Your task to perform on an android device: Go to Google Image 0: 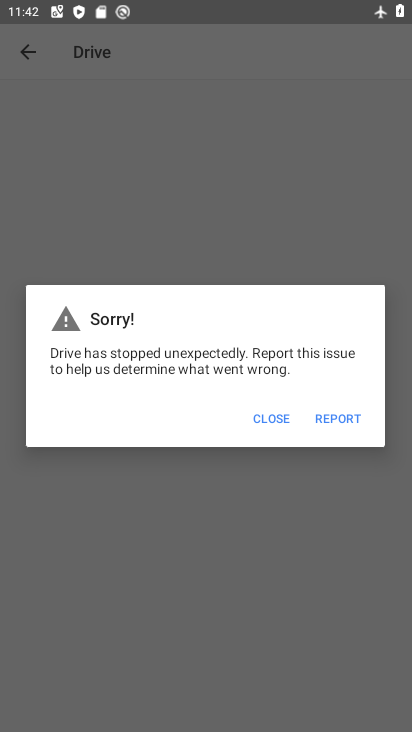
Step 0: press home button
Your task to perform on an android device: Go to Google Image 1: 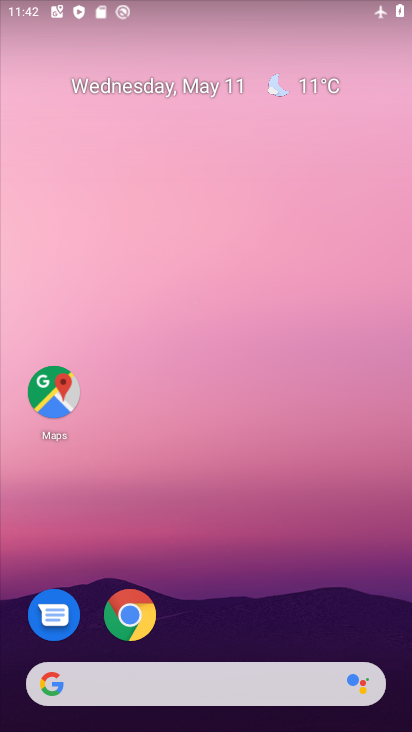
Step 1: drag from (240, 609) to (248, 190)
Your task to perform on an android device: Go to Google Image 2: 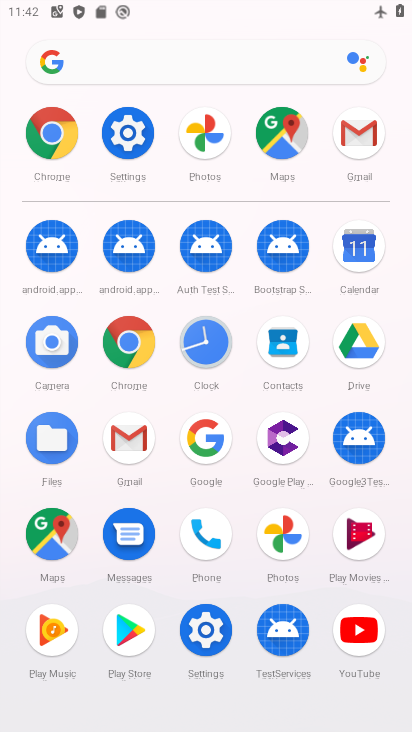
Step 2: click (190, 434)
Your task to perform on an android device: Go to Google Image 3: 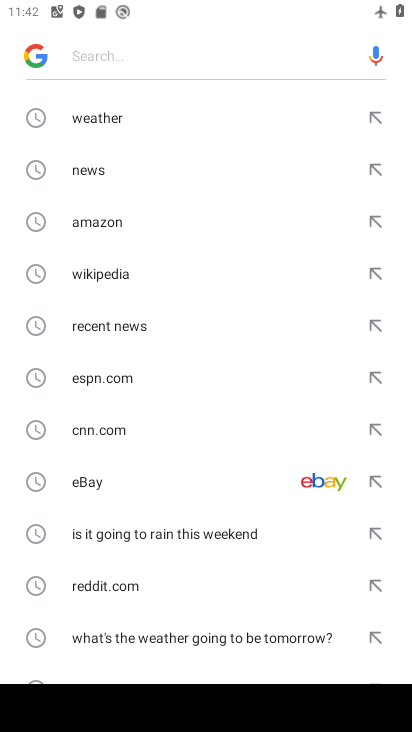
Step 3: task complete